Your task to perform on an android device: open a new tab in the chrome app Image 0: 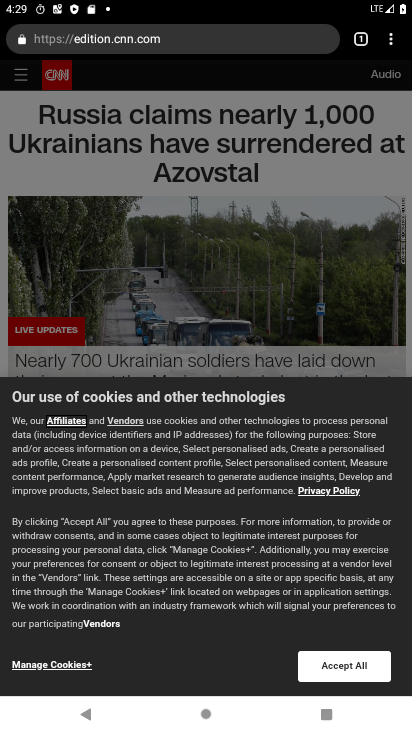
Step 0: click (386, 40)
Your task to perform on an android device: open a new tab in the chrome app Image 1: 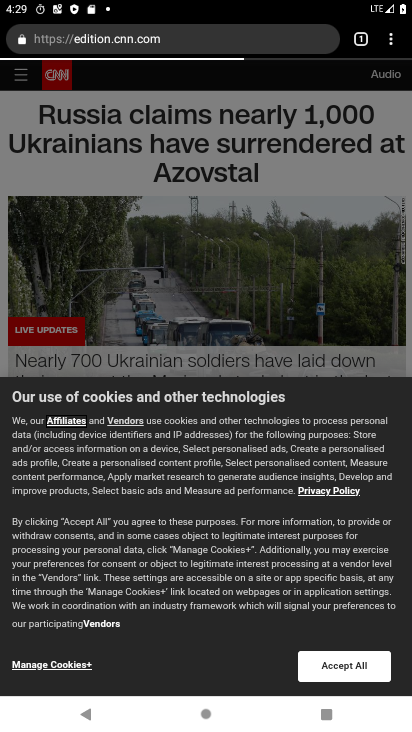
Step 1: click (388, 36)
Your task to perform on an android device: open a new tab in the chrome app Image 2: 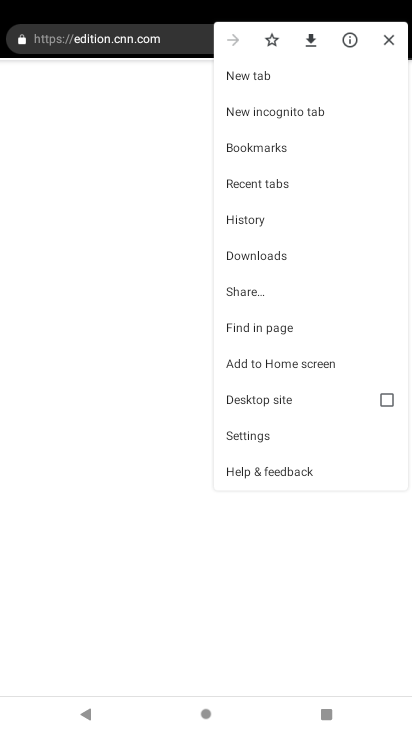
Step 2: click (288, 78)
Your task to perform on an android device: open a new tab in the chrome app Image 3: 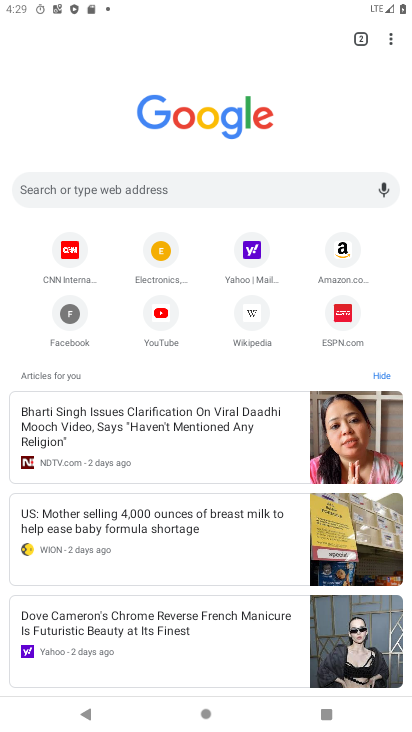
Step 3: task complete